Your task to perform on an android device: Check the news Image 0: 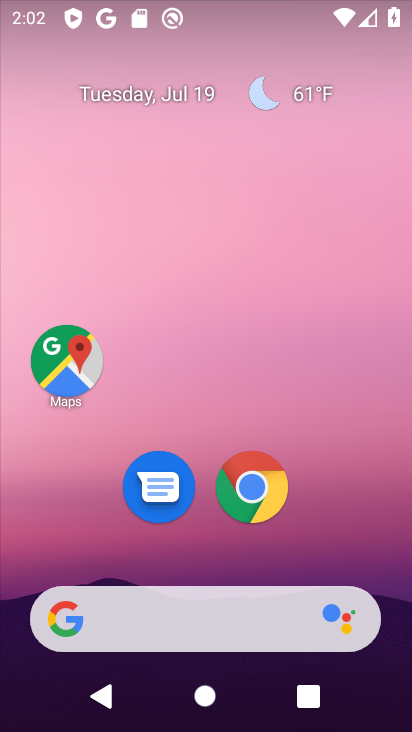
Step 0: click (209, 612)
Your task to perform on an android device: Check the news Image 1: 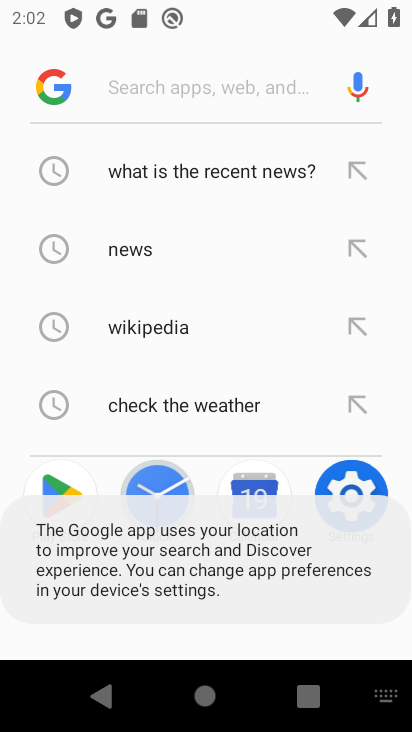
Step 1: click (128, 252)
Your task to perform on an android device: Check the news Image 2: 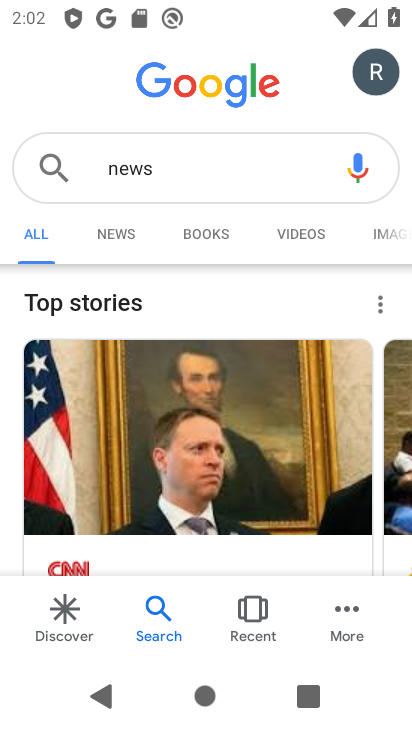
Step 2: task complete